Your task to perform on an android device: Go to CNN.com Image 0: 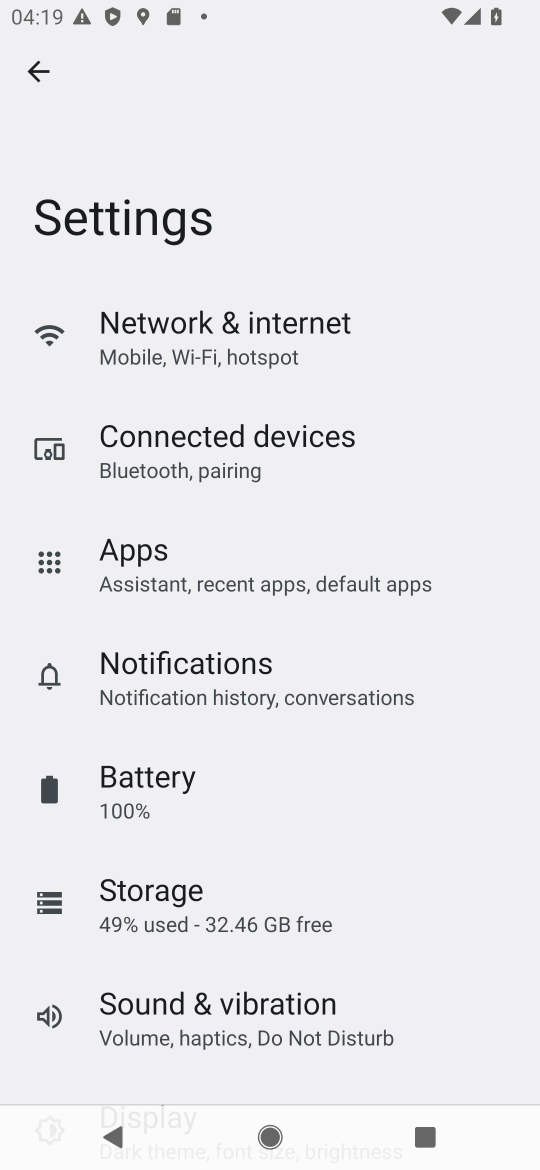
Step 0: press home button
Your task to perform on an android device: Go to CNN.com Image 1: 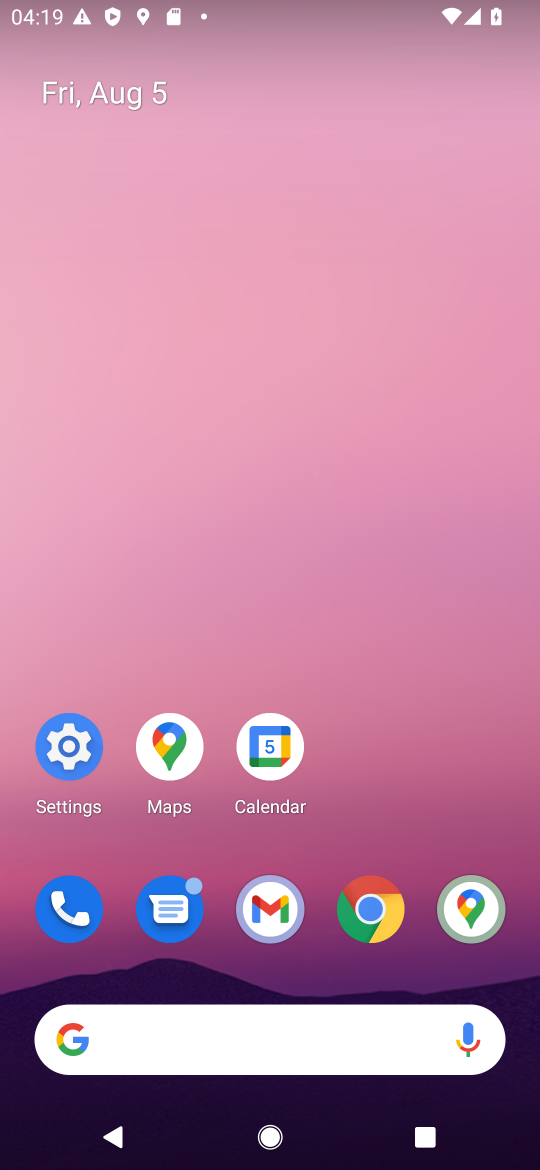
Step 1: click (373, 911)
Your task to perform on an android device: Go to CNN.com Image 2: 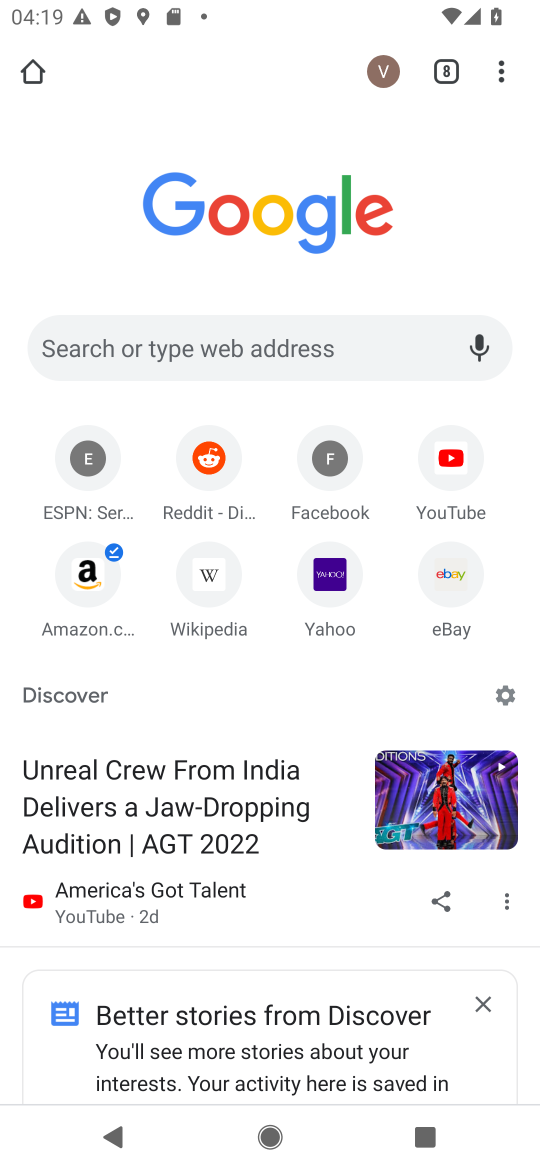
Step 2: click (260, 337)
Your task to perform on an android device: Go to CNN.com Image 3: 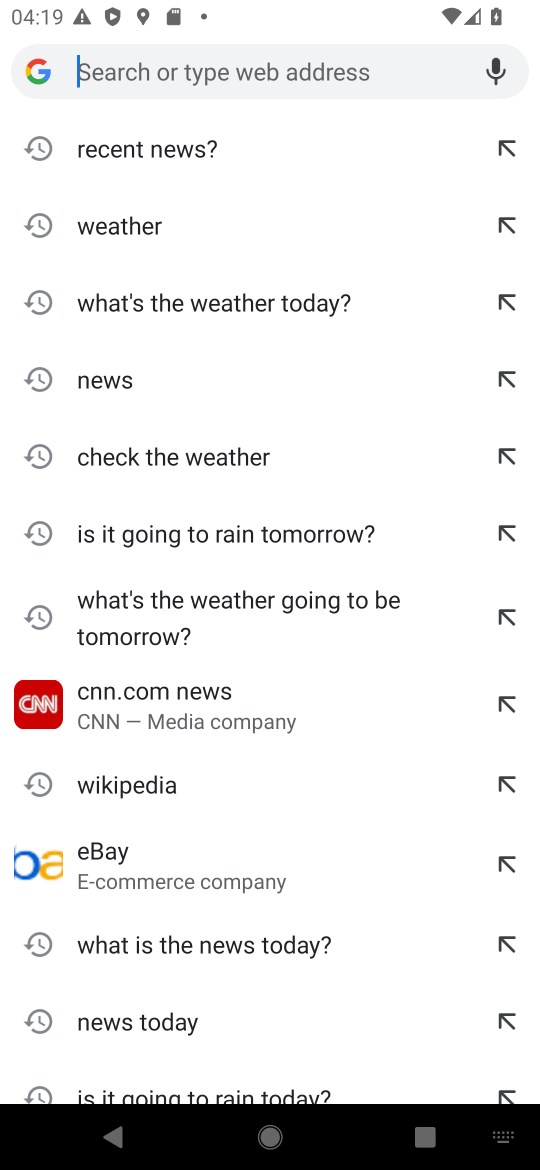
Step 3: click (189, 694)
Your task to perform on an android device: Go to CNN.com Image 4: 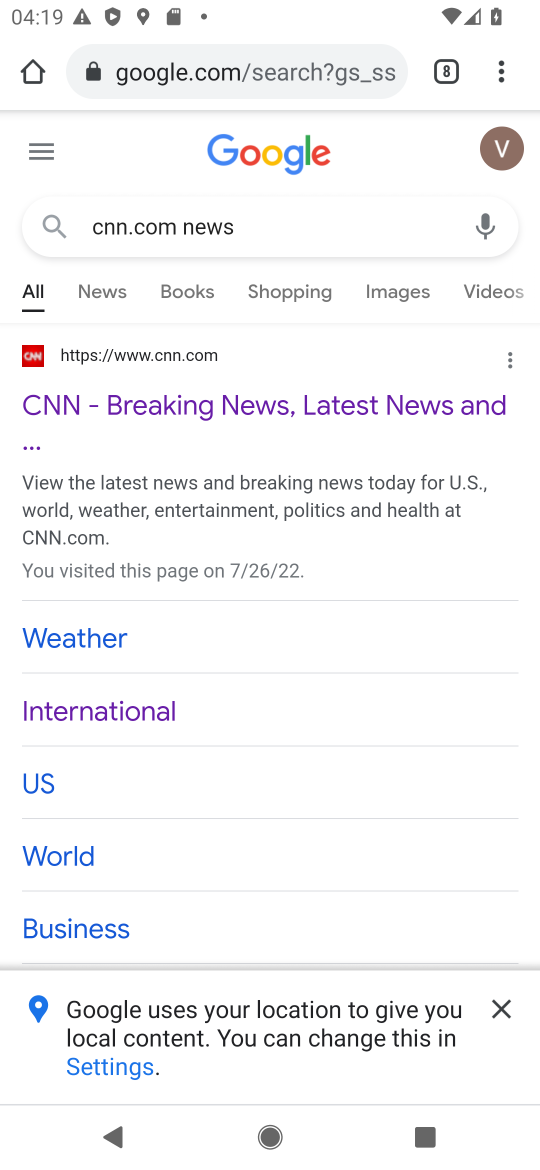
Step 4: click (191, 404)
Your task to perform on an android device: Go to CNN.com Image 5: 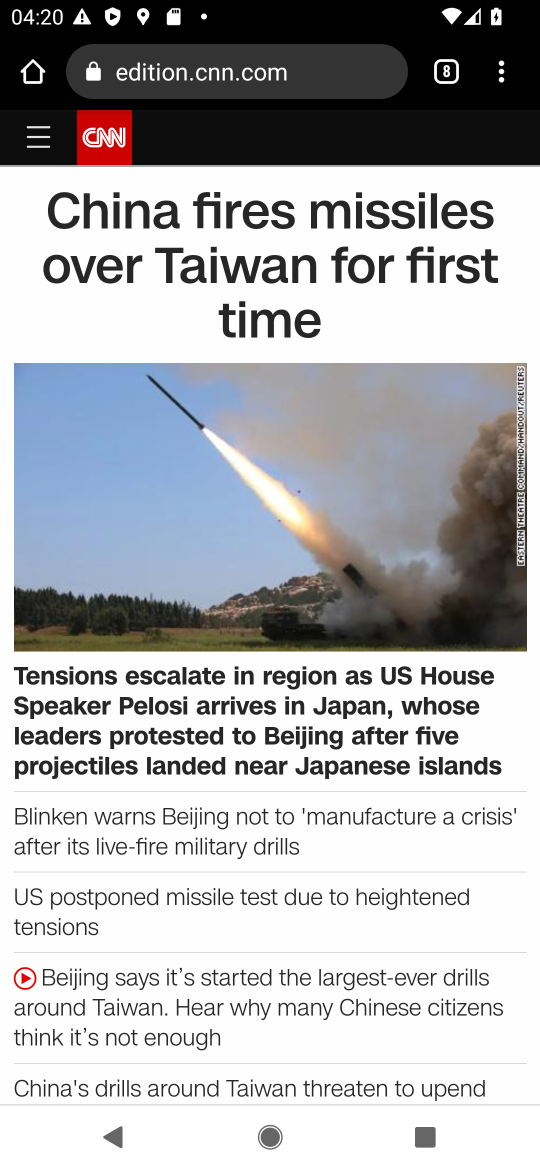
Step 5: task complete